Your task to perform on an android device: Search for the best gaming mouse on Best Buy. Image 0: 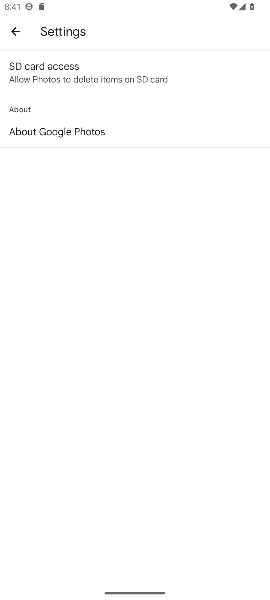
Step 0: press home button
Your task to perform on an android device: Search for the best gaming mouse on Best Buy. Image 1: 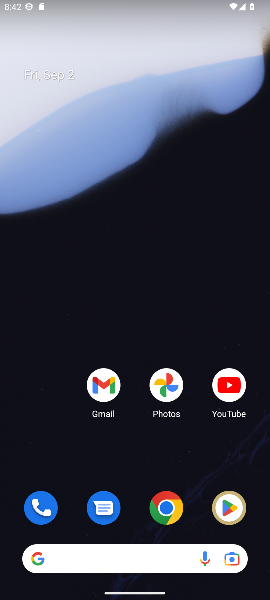
Step 1: drag from (184, 463) to (136, 95)
Your task to perform on an android device: Search for the best gaming mouse on Best Buy. Image 2: 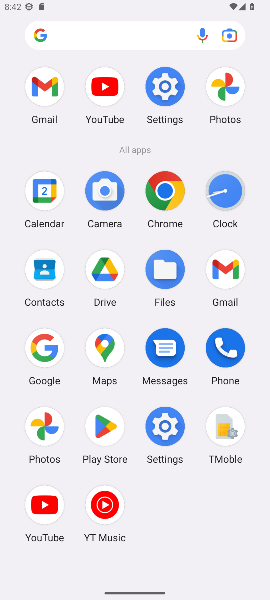
Step 2: click (167, 191)
Your task to perform on an android device: Search for the best gaming mouse on Best Buy. Image 3: 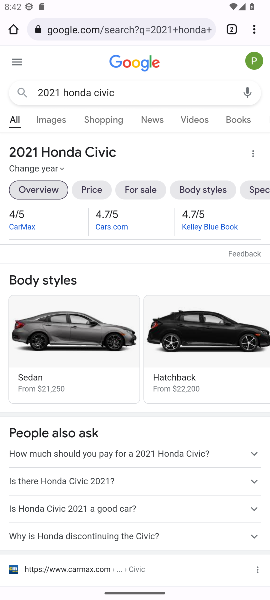
Step 3: click (101, 26)
Your task to perform on an android device: Search for the best gaming mouse on Best Buy. Image 4: 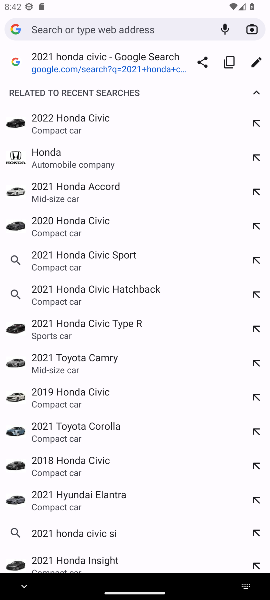
Step 4: type "best gaming mouse on best buy"
Your task to perform on an android device: Search for the best gaming mouse on Best Buy. Image 5: 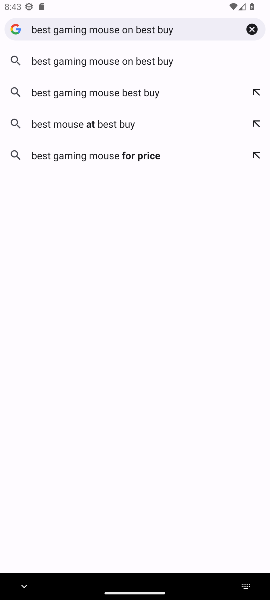
Step 5: click (50, 61)
Your task to perform on an android device: Search for the best gaming mouse on Best Buy. Image 6: 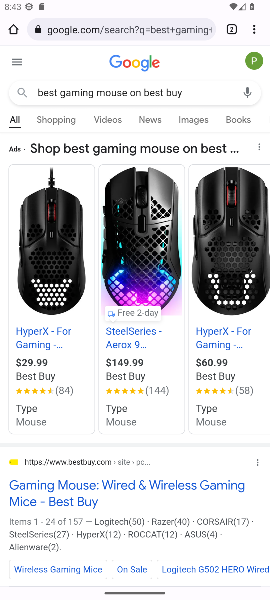
Step 6: task complete